Your task to perform on an android device: Go to Google maps Image 0: 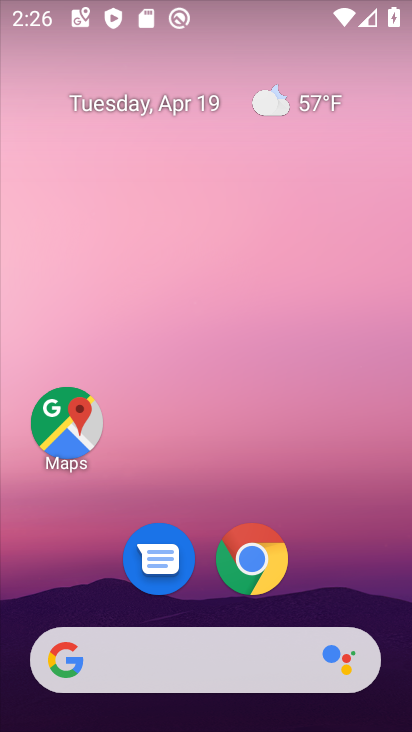
Step 0: drag from (204, 589) to (210, 84)
Your task to perform on an android device: Go to Google maps Image 1: 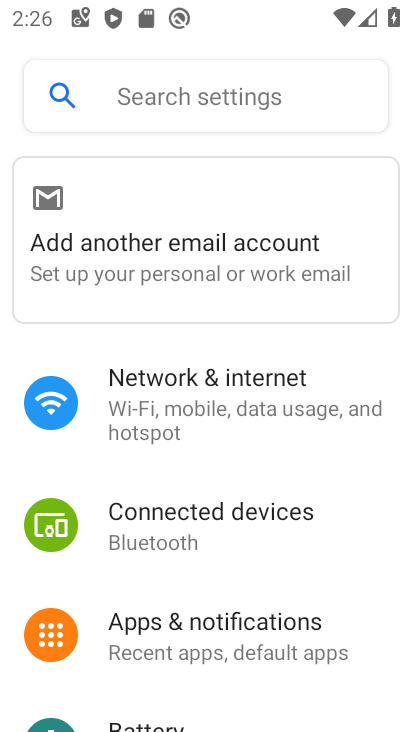
Step 1: press home button
Your task to perform on an android device: Go to Google maps Image 2: 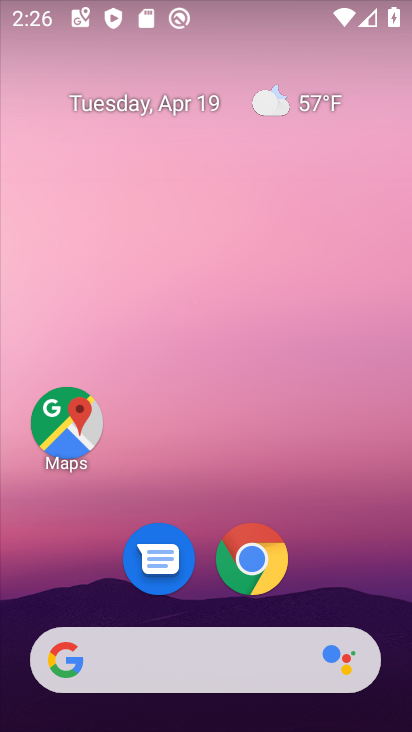
Step 2: click (67, 416)
Your task to perform on an android device: Go to Google maps Image 3: 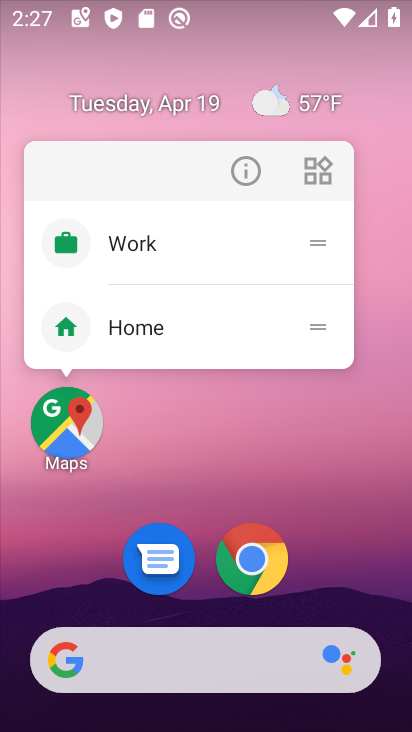
Step 3: drag from (209, 493) to (213, 10)
Your task to perform on an android device: Go to Google maps Image 4: 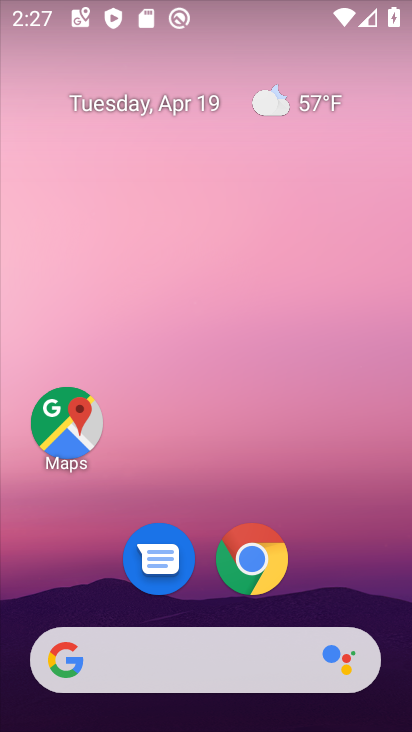
Step 4: drag from (208, 507) to (183, 2)
Your task to perform on an android device: Go to Google maps Image 5: 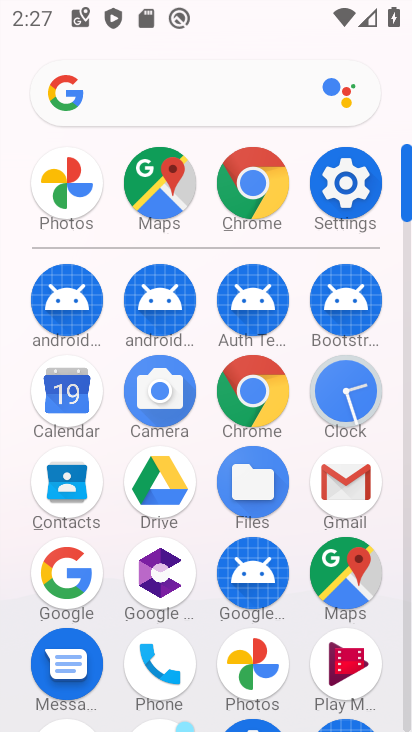
Step 5: click (348, 568)
Your task to perform on an android device: Go to Google maps Image 6: 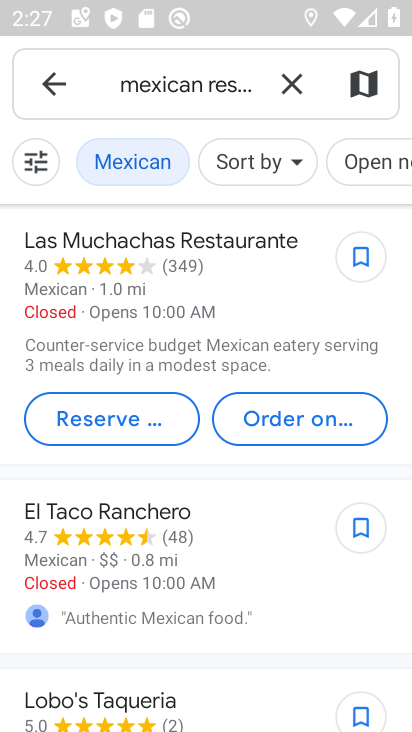
Step 6: click (50, 93)
Your task to perform on an android device: Go to Google maps Image 7: 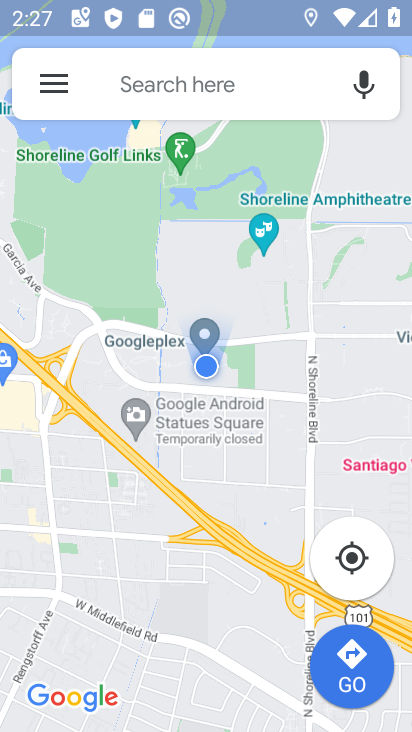
Step 7: drag from (191, 589) to (206, 172)
Your task to perform on an android device: Go to Google maps Image 8: 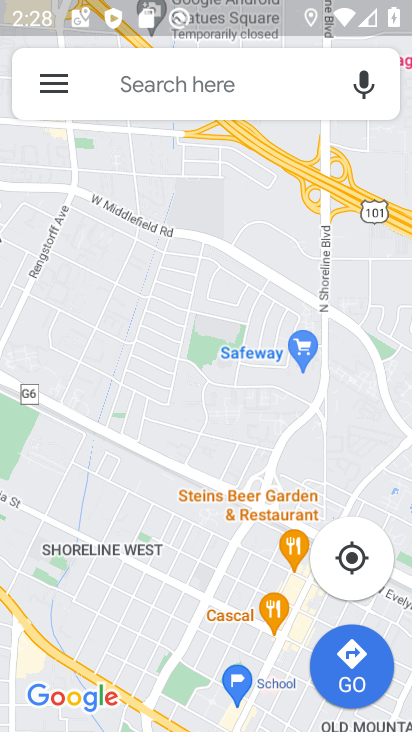
Step 8: click (45, 84)
Your task to perform on an android device: Go to Google maps Image 9: 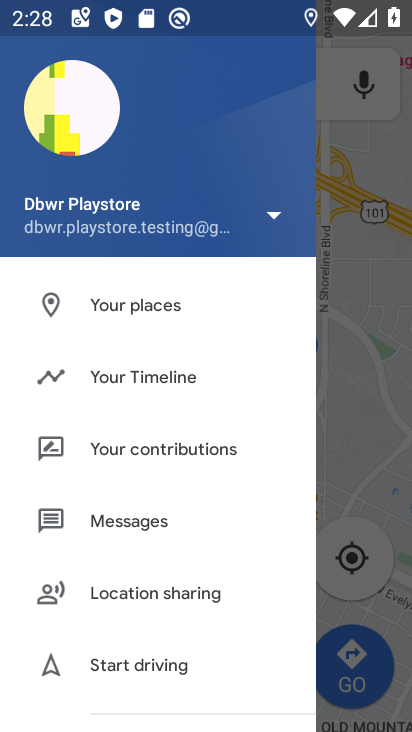
Step 9: task complete